Your task to perform on an android device: What's the weather going to be tomorrow? Image 0: 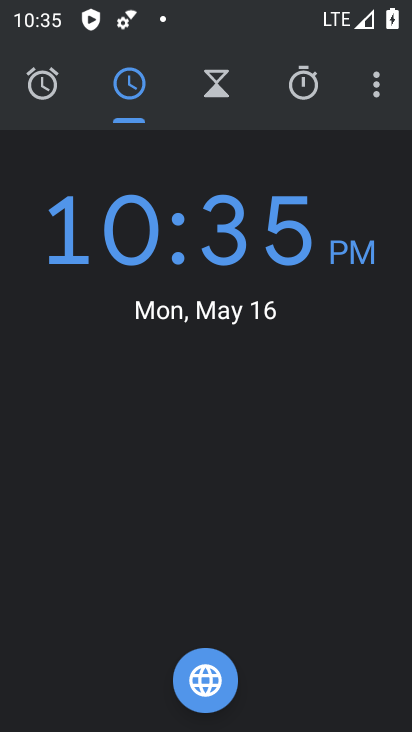
Step 0: press home button
Your task to perform on an android device: What's the weather going to be tomorrow? Image 1: 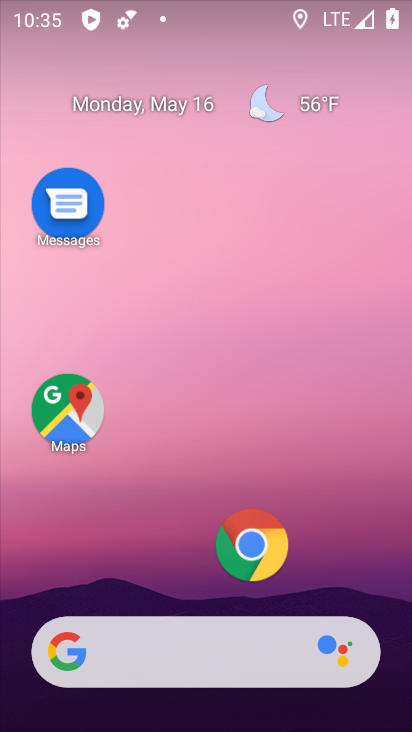
Step 1: drag from (213, 610) to (155, 69)
Your task to perform on an android device: What's the weather going to be tomorrow? Image 2: 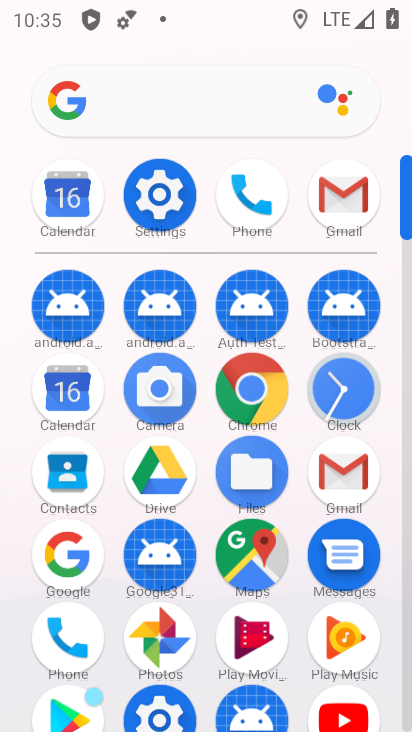
Step 2: click (75, 398)
Your task to perform on an android device: What's the weather going to be tomorrow? Image 3: 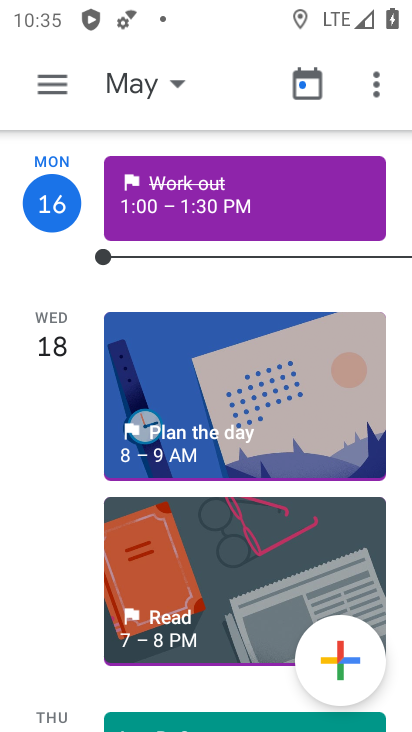
Step 3: click (37, 363)
Your task to perform on an android device: What's the weather going to be tomorrow? Image 4: 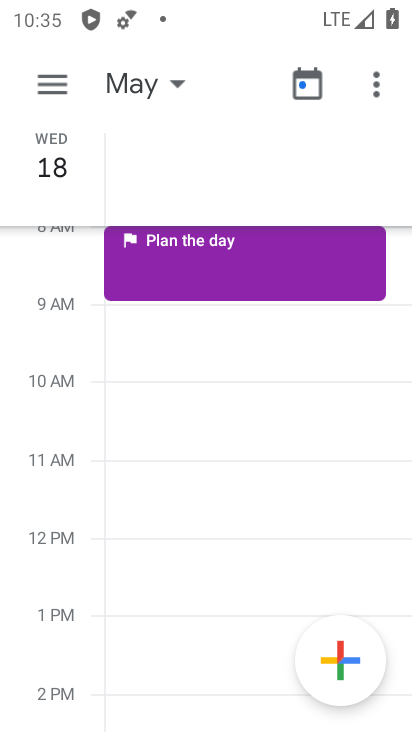
Step 4: click (303, 72)
Your task to perform on an android device: What's the weather going to be tomorrow? Image 5: 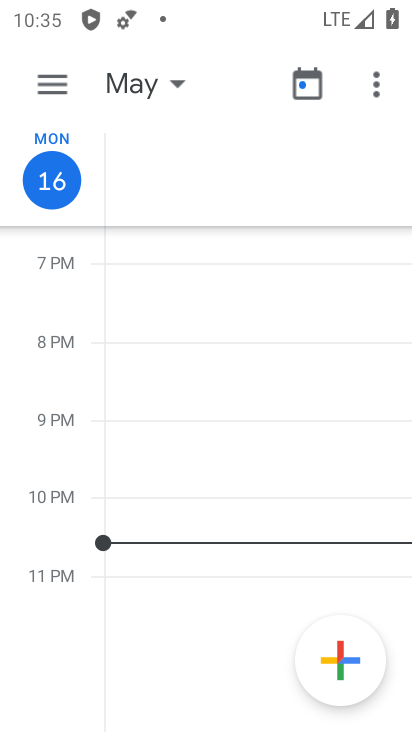
Step 5: click (301, 99)
Your task to perform on an android device: What's the weather going to be tomorrow? Image 6: 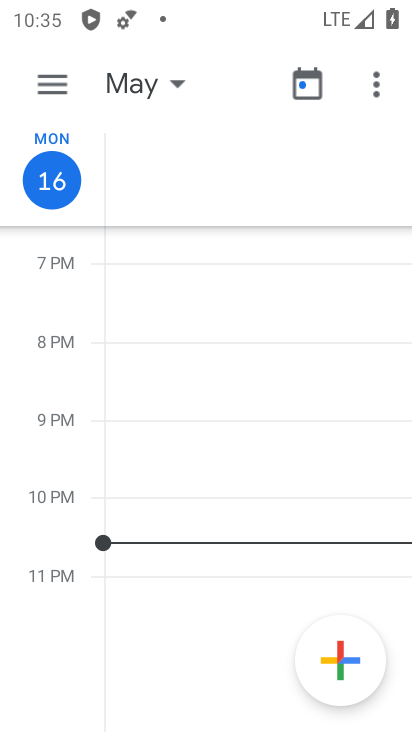
Step 6: click (308, 68)
Your task to perform on an android device: What's the weather going to be tomorrow? Image 7: 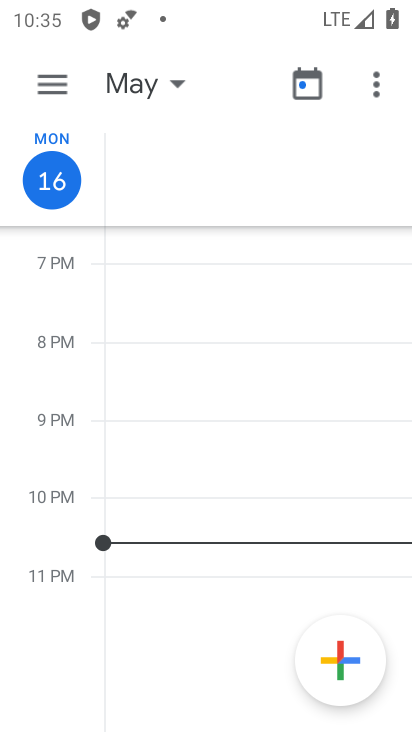
Step 7: click (308, 68)
Your task to perform on an android device: What's the weather going to be tomorrow? Image 8: 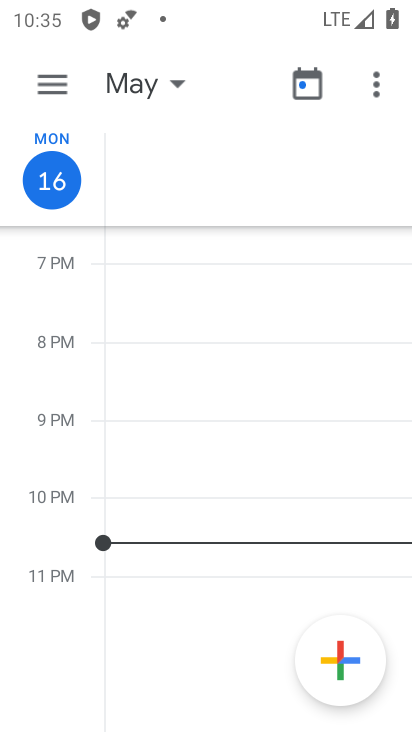
Step 8: click (304, 78)
Your task to perform on an android device: What's the weather going to be tomorrow? Image 9: 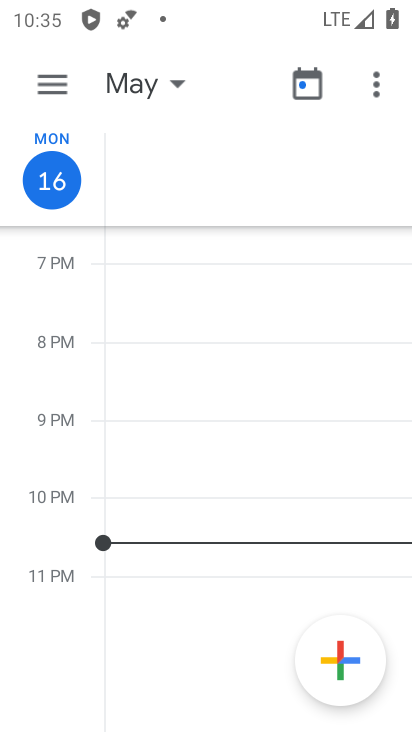
Step 9: task complete